Your task to perform on an android device: Go to Wikipedia Image 0: 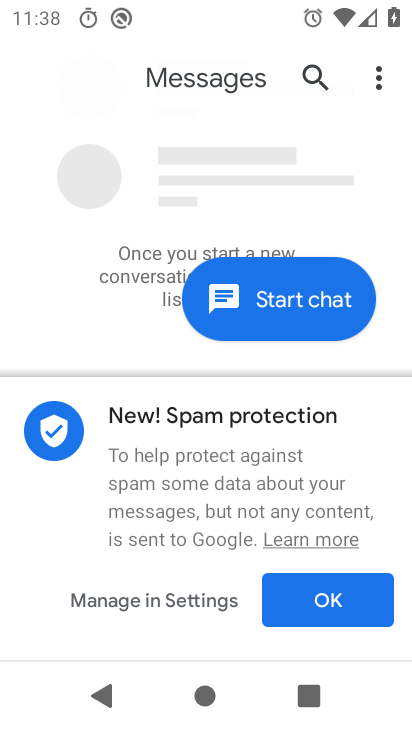
Step 0: press home button
Your task to perform on an android device: Go to Wikipedia Image 1: 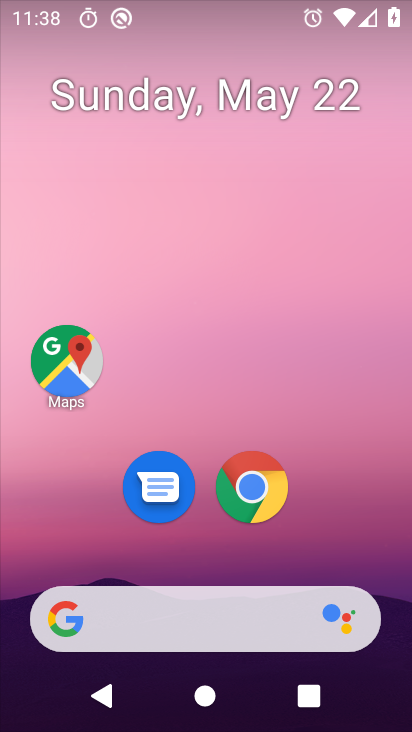
Step 1: drag from (379, 543) to (372, 154)
Your task to perform on an android device: Go to Wikipedia Image 2: 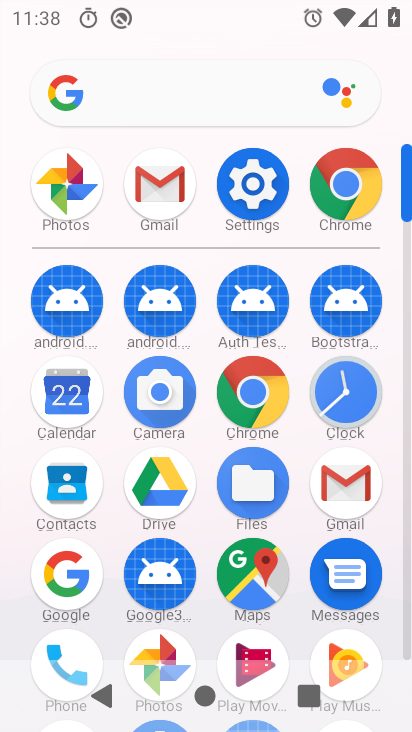
Step 2: click (236, 411)
Your task to perform on an android device: Go to Wikipedia Image 3: 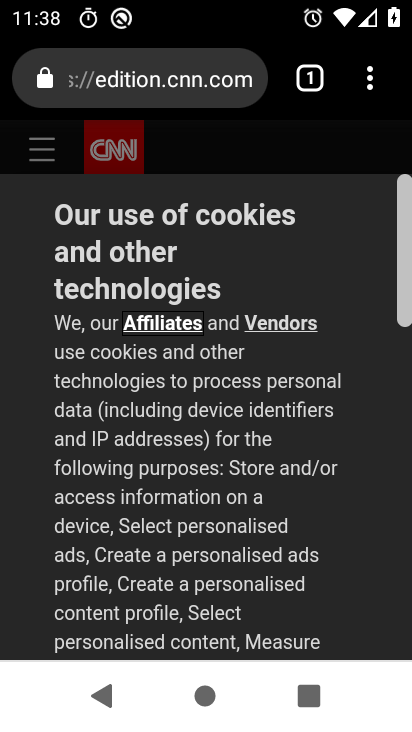
Step 3: click (145, 90)
Your task to perform on an android device: Go to Wikipedia Image 4: 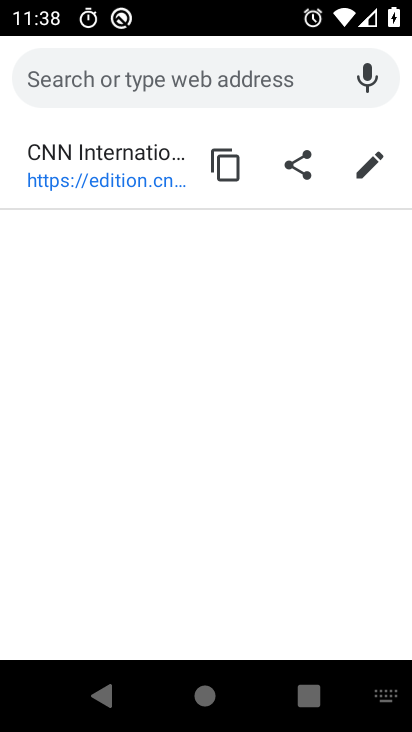
Step 4: type "wikipedia"
Your task to perform on an android device: Go to Wikipedia Image 5: 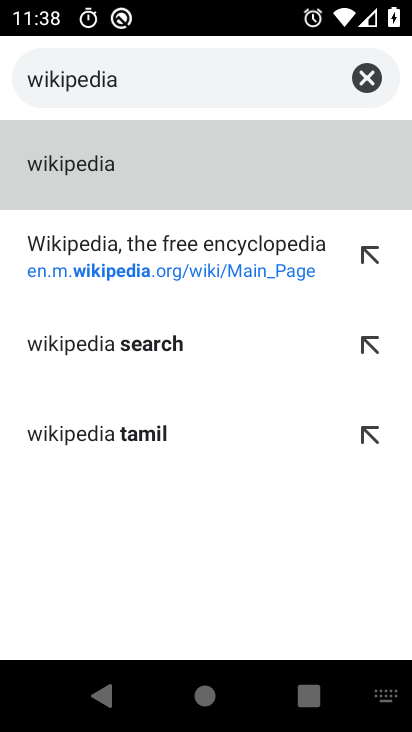
Step 5: click (111, 184)
Your task to perform on an android device: Go to Wikipedia Image 6: 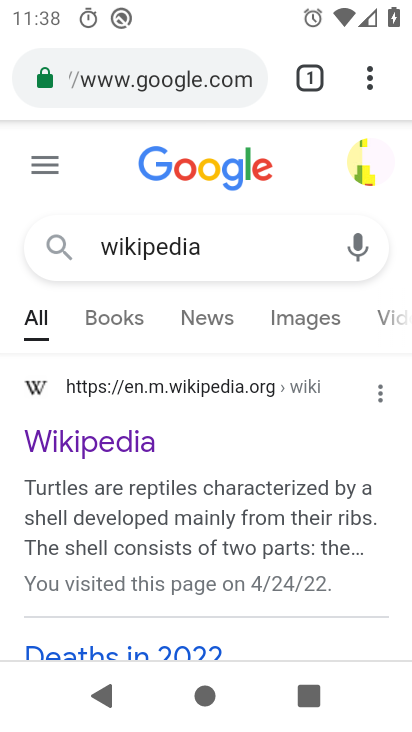
Step 6: click (133, 436)
Your task to perform on an android device: Go to Wikipedia Image 7: 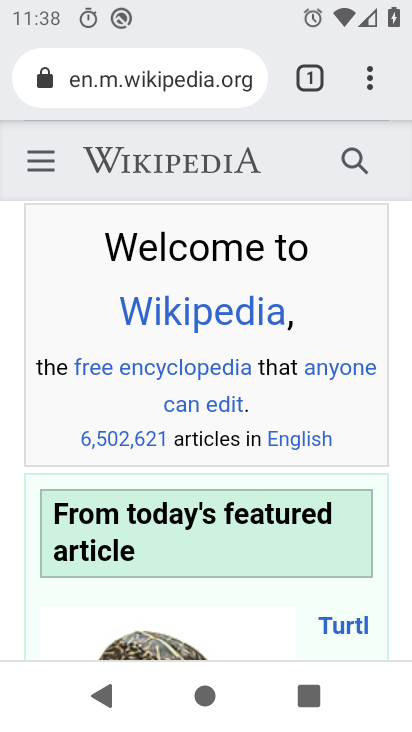
Step 7: task complete